Your task to perform on an android device: Open the calendar app, open the side menu, and click the "Day" option Image 0: 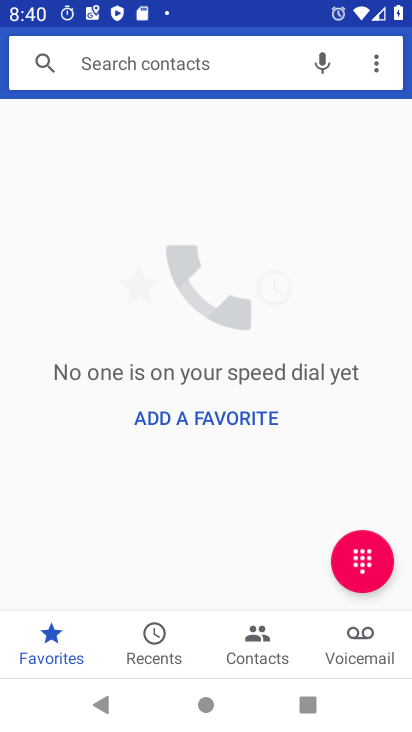
Step 0: press home button
Your task to perform on an android device: Open the calendar app, open the side menu, and click the "Day" option Image 1: 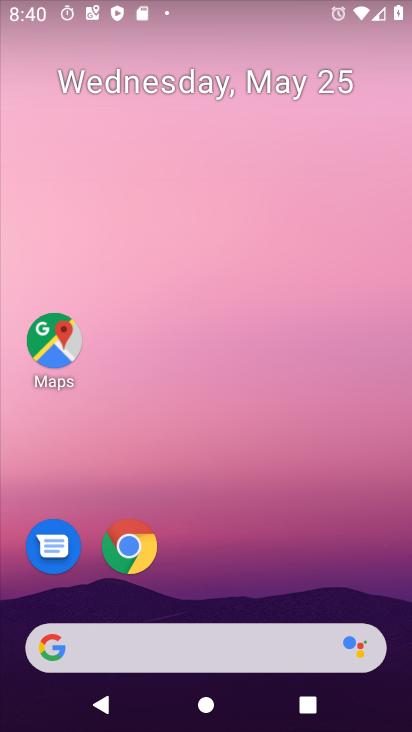
Step 1: drag from (202, 603) to (268, 128)
Your task to perform on an android device: Open the calendar app, open the side menu, and click the "Day" option Image 2: 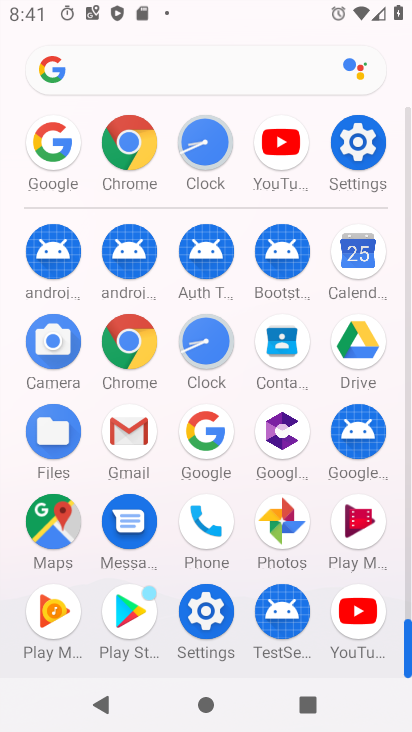
Step 2: click (353, 274)
Your task to perform on an android device: Open the calendar app, open the side menu, and click the "Day" option Image 3: 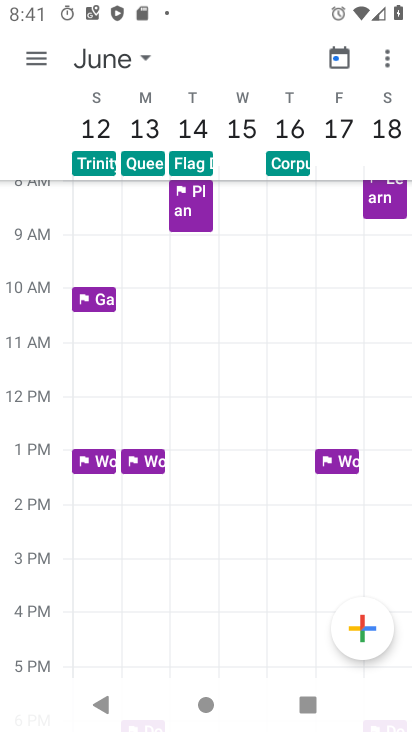
Step 3: click (40, 64)
Your task to perform on an android device: Open the calendar app, open the side menu, and click the "Day" option Image 4: 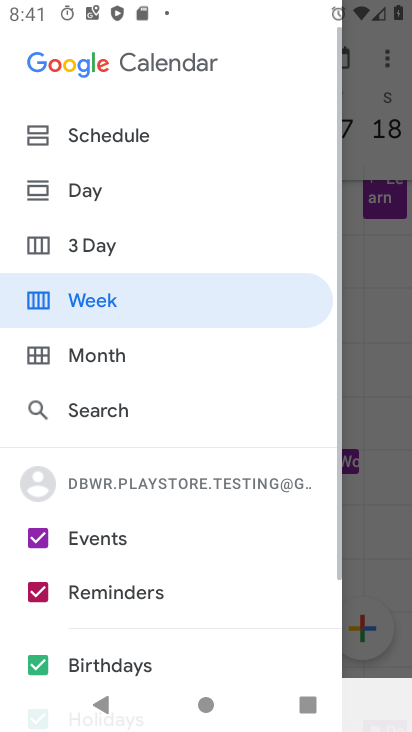
Step 4: click (92, 189)
Your task to perform on an android device: Open the calendar app, open the side menu, and click the "Day" option Image 5: 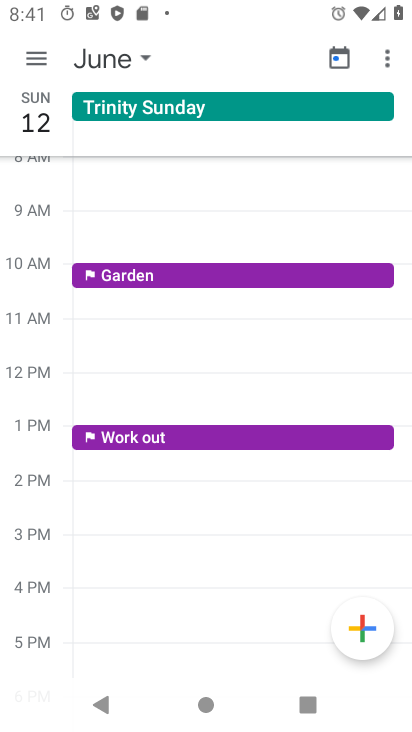
Step 5: task complete